Your task to perform on an android device: turn on showing notifications on the lock screen Image 0: 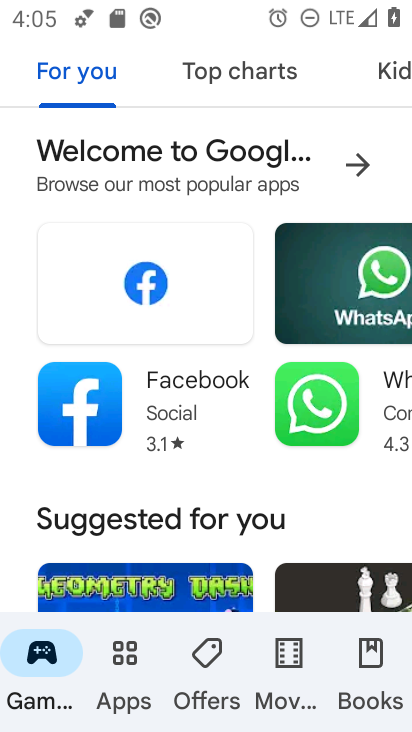
Step 0: press back button
Your task to perform on an android device: turn on showing notifications on the lock screen Image 1: 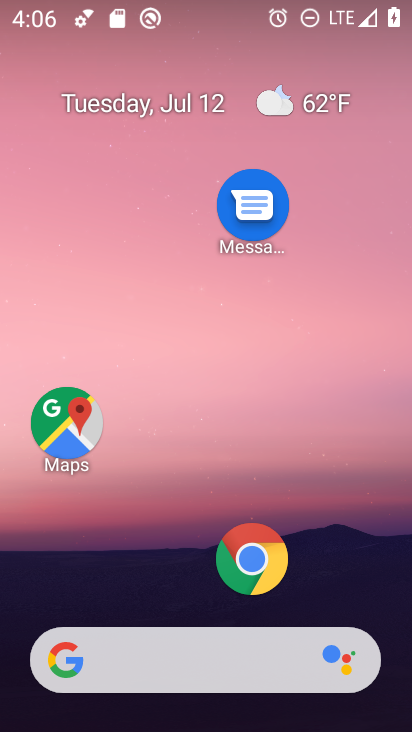
Step 1: drag from (163, 465) to (266, 8)
Your task to perform on an android device: turn on showing notifications on the lock screen Image 2: 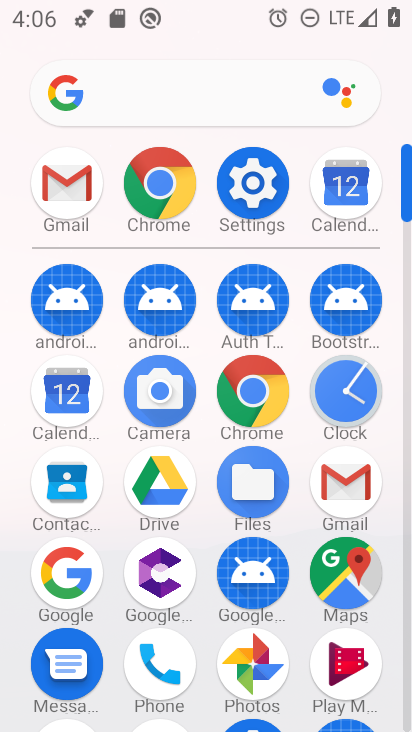
Step 2: click (261, 191)
Your task to perform on an android device: turn on showing notifications on the lock screen Image 3: 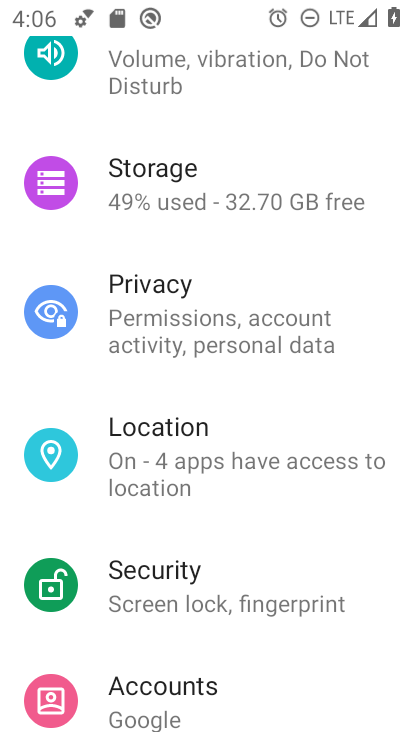
Step 3: drag from (286, 206) to (135, 681)
Your task to perform on an android device: turn on showing notifications on the lock screen Image 4: 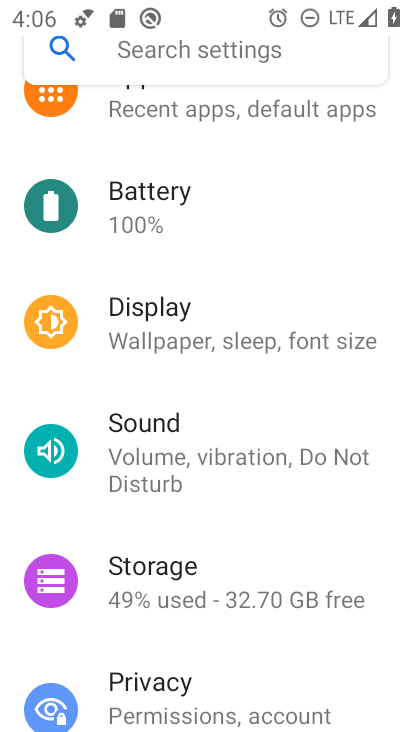
Step 4: drag from (201, 209) to (227, 721)
Your task to perform on an android device: turn on showing notifications on the lock screen Image 5: 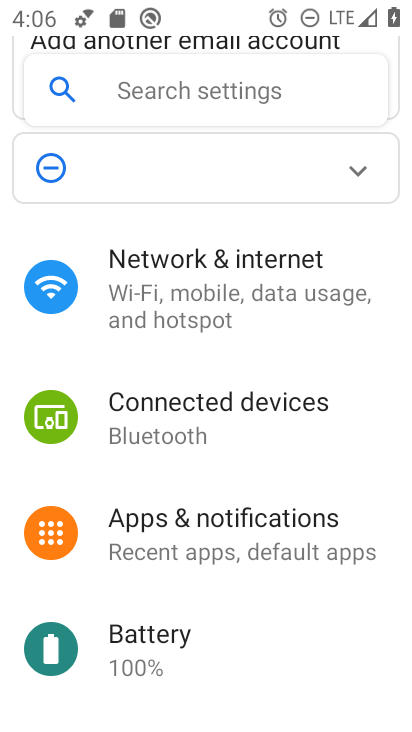
Step 5: click (232, 526)
Your task to perform on an android device: turn on showing notifications on the lock screen Image 6: 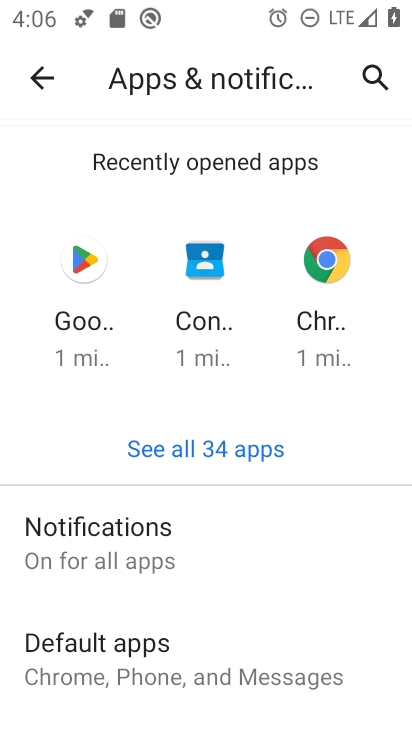
Step 6: click (173, 549)
Your task to perform on an android device: turn on showing notifications on the lock screen Image 7: 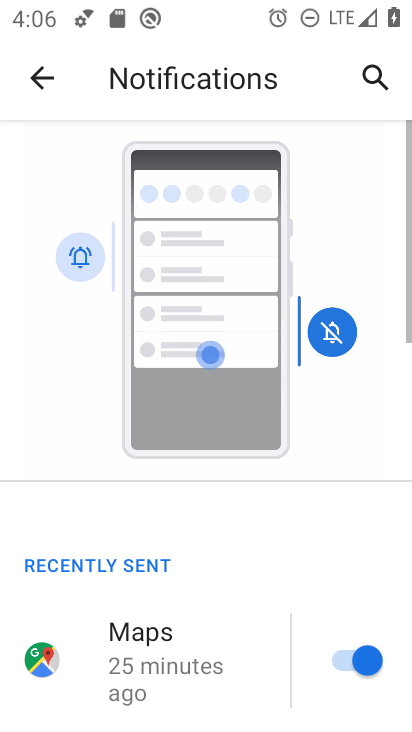
Step 7: drag from (154, 628) to (314, 15)
Your task to perform on an android device: turn on showing notifications on the lock screen Image 8: 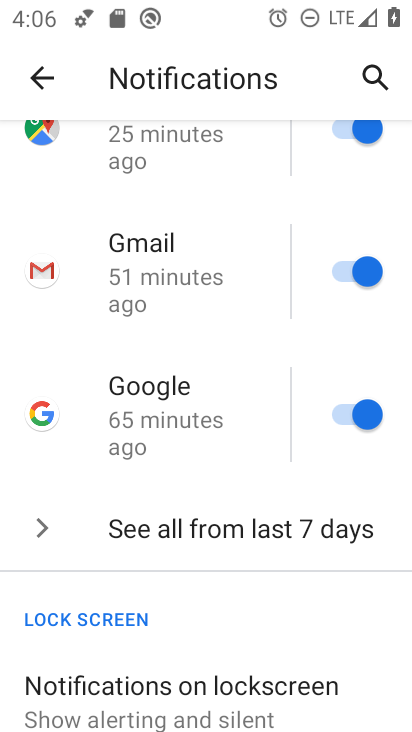
Step 8: click (197, 708)
Your task to perform on an android device: turn on showing notifications on the lock screen Image 9: 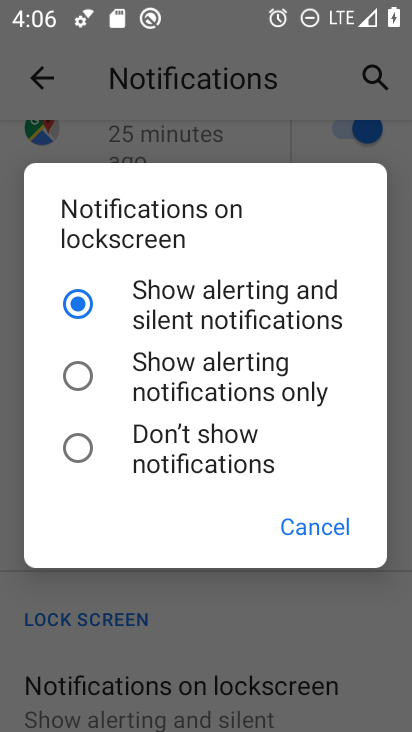
Step 9: task complete